Your task to perform on an android device: change the clock display to show seconds Image 0: 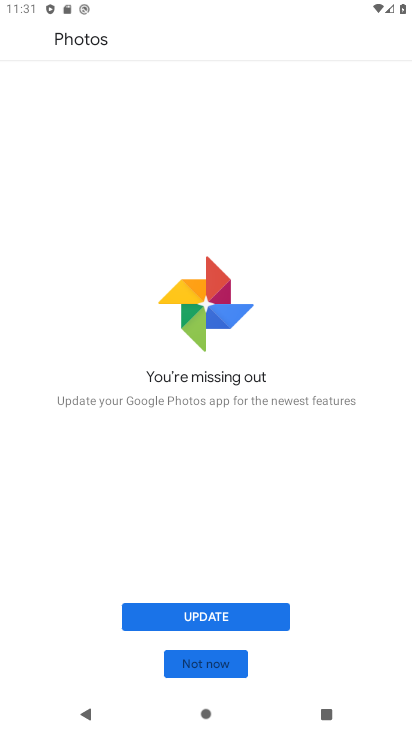
Step 0: press home button
Your task to perform on an android device: change the clock display to show seconds Image 1: 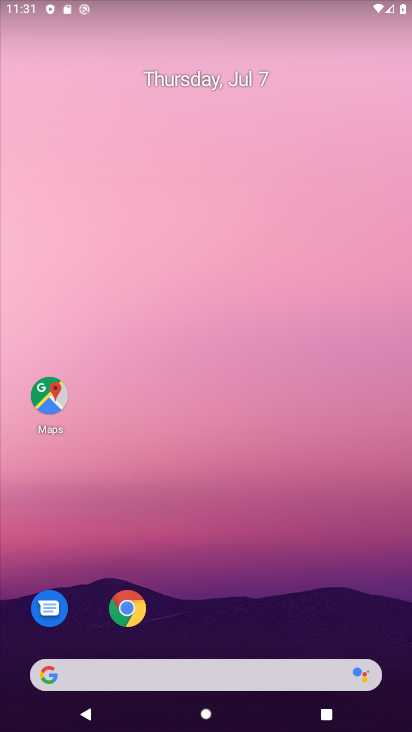
Step 1: drag from (337, 595) to (226, 184)
Your task to perform on an android device: change the clock display to show seconds Image 2: 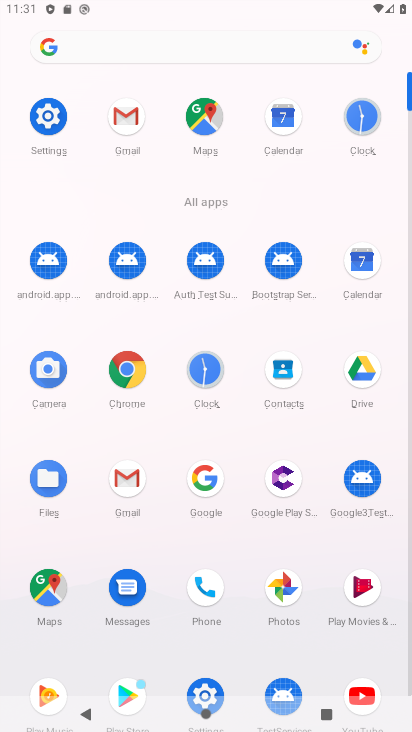
Step 2: click (365, 127)
Your task to perform on an android device: change the clock display to show seconds Image 3: 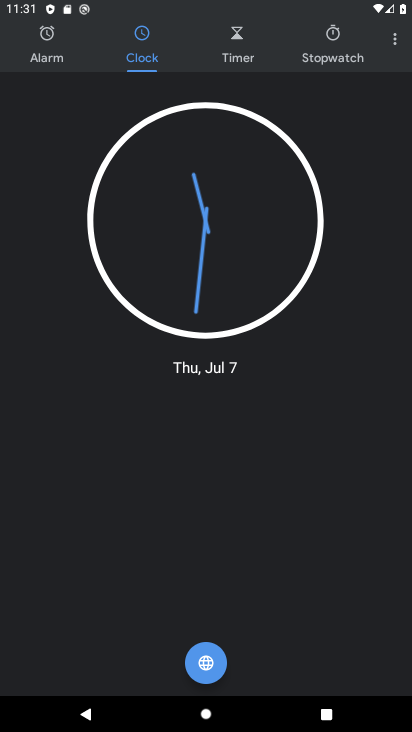
Step 3: click (387, 33)
Your task to perform on an android device: change the clock display to show seconds Image 4: 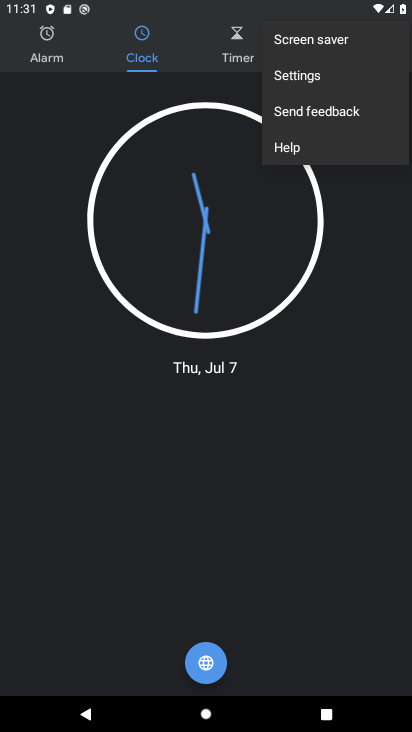
Step 4: click (268, 81)
Your task to perform on an android device: change the clock display to show seconds Image 5: 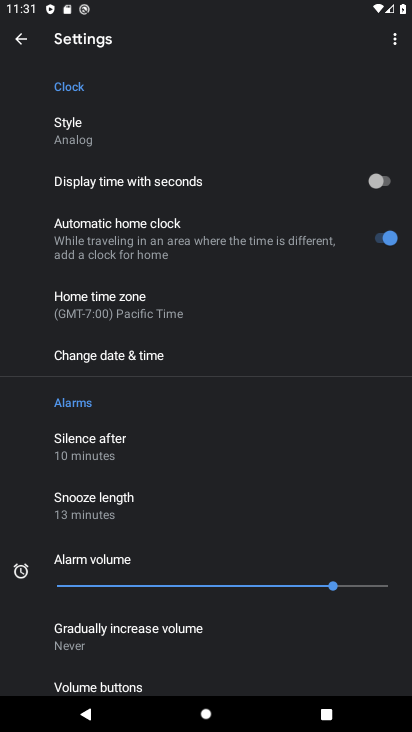
Step 5: click (170, 161)
Your task to perform on an android device: change the clock display to show seconds Image 6: 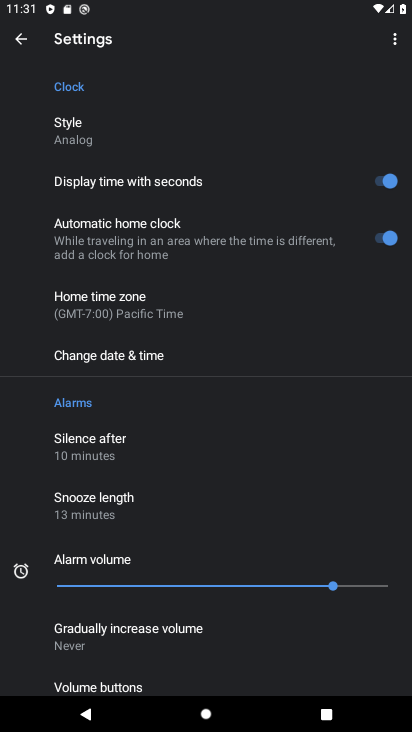
Step 6: task complete